Your task to perform on an android device: Set the phone to "Do not disturb". Image 0: 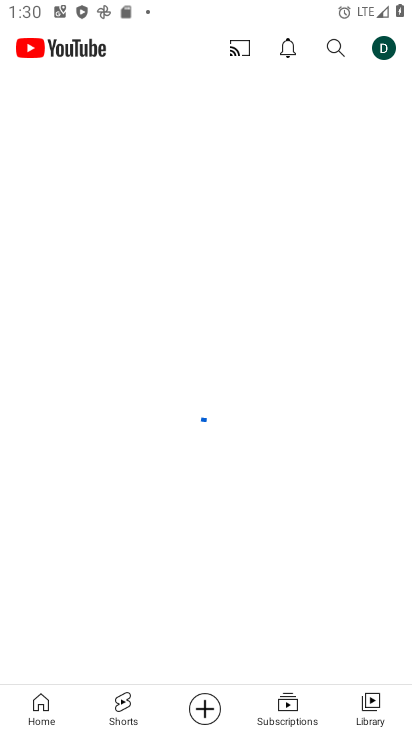
Step 0: drag from (270, 678) to (219, 343)
Your task to perform on an android device: Set the phone to "Do not disturb". Image 1: 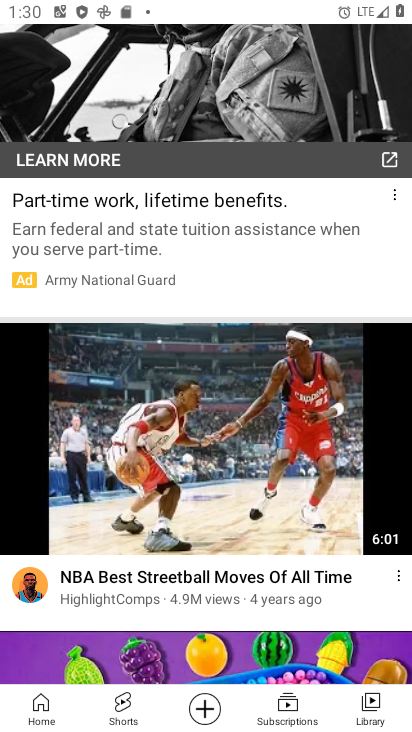
Step 1: press home button
Your task to perform on an android device: Set the phone to "Do not disturb". Image 2: 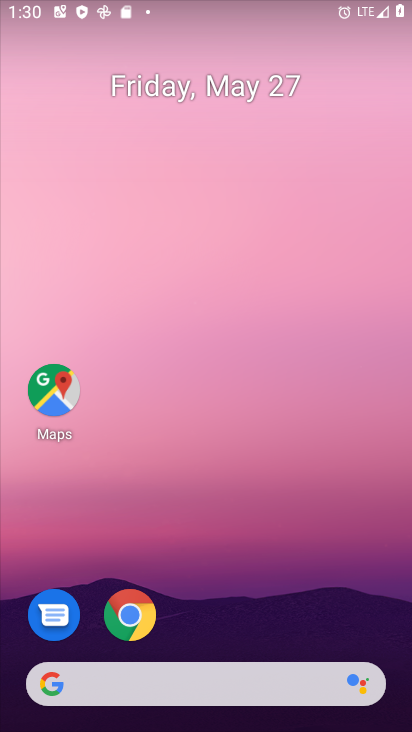
Step 2: drag from (288, 679) to (244, 6)
Your task to perform on an android device: Set the phone to "Do not disturb". Image 3: 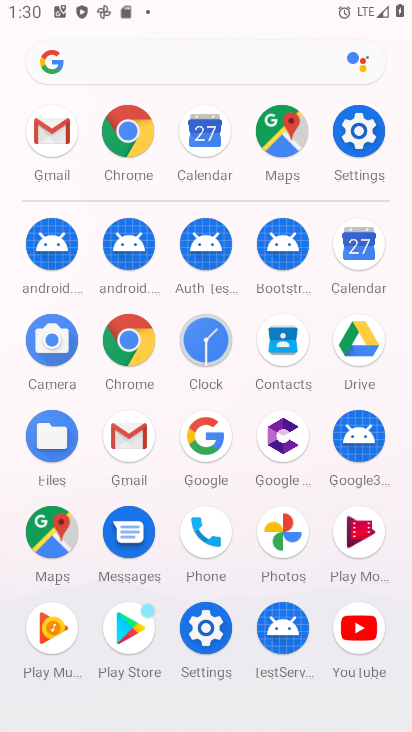
Step 3: click (356, 135)
Your task to perform on an android device: Set the phone to "Do not disturb". Image 4: 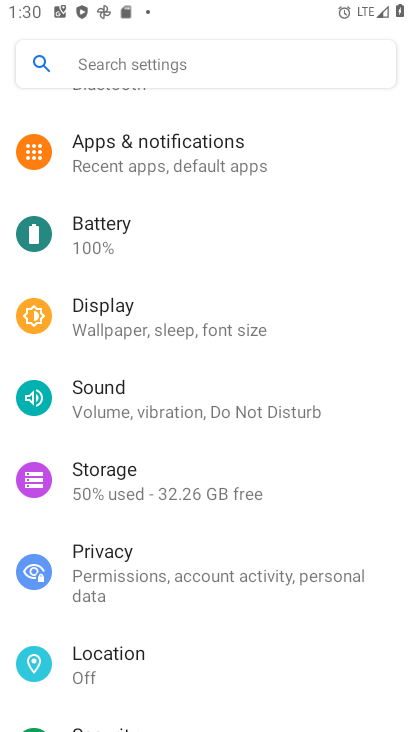
Step 4: click (143, 396)
Your task to perform on an android device: Set the phone to "Do not disturb". Image 5: 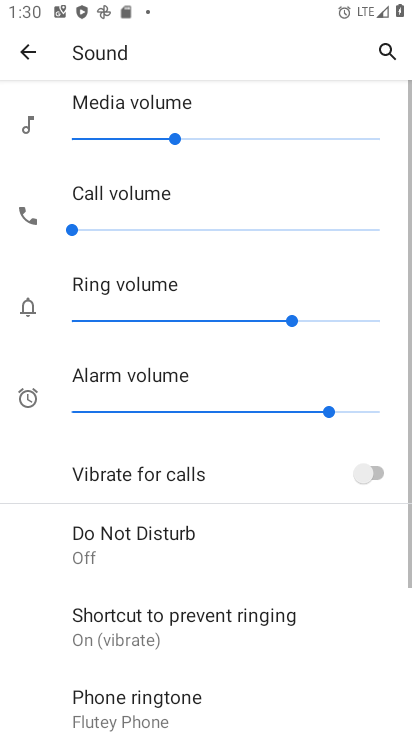
Step 5: drag from (205, 651) to (218, 510)
Your task to perform on an android device: Set the phone to "Do not disturb". Image 6: 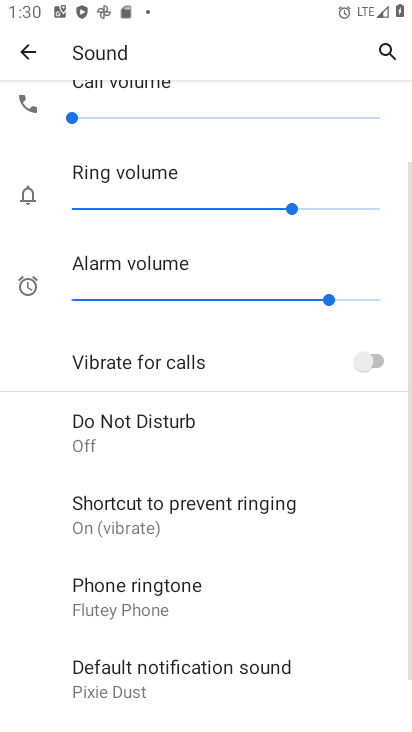
Step 6: click (151, 441)
Your task to perform on an android device: Set the phone to "Do not disturb". Image 7: 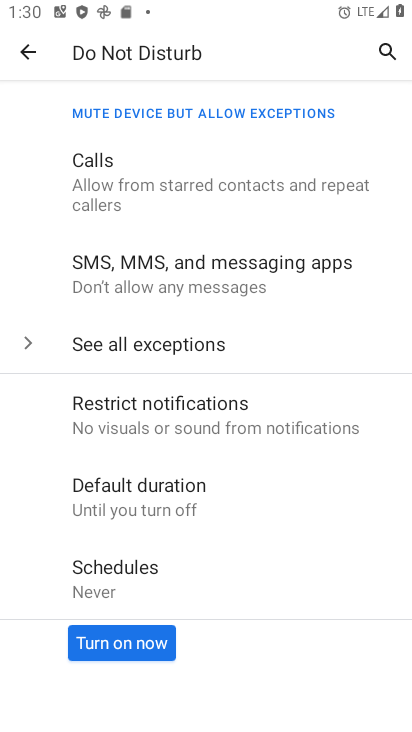
Step 7: click (139, 647)
Your task to perform on an android device: Set the phone to "Do not disturb". Image 8: 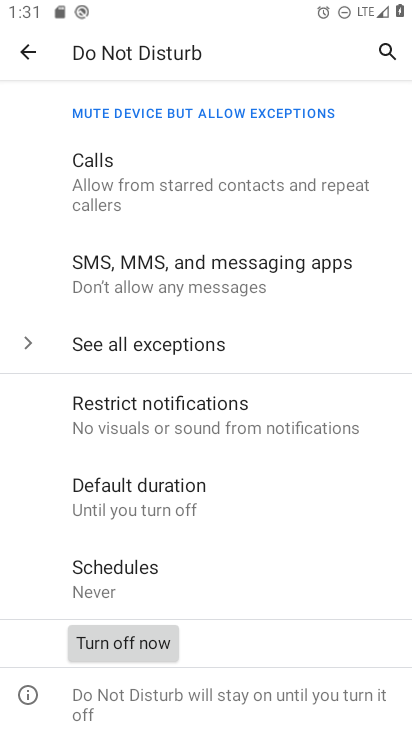
Step 8: task complete